Your task to perform on an android device: search for starred emails in the gmail app Image 0: 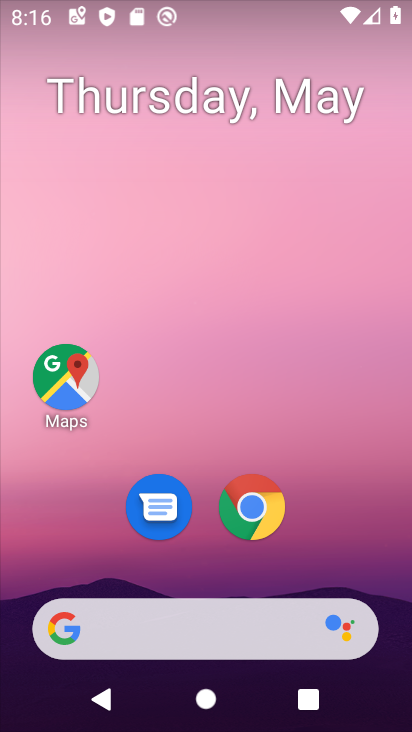
Step 0: press home button
Your task to perform on an android device: search for starred emails in the gmail app Image 1: 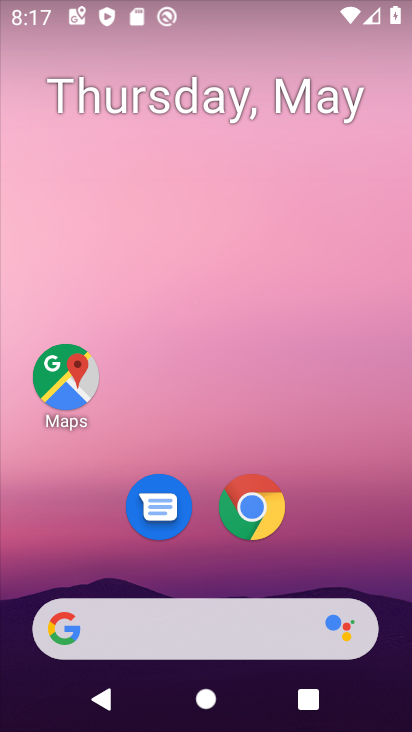
Step 1: drag from (267, 676) to (119, 174)
Your task to perform on an android device: search for starred emails in the gmail app Image 2: 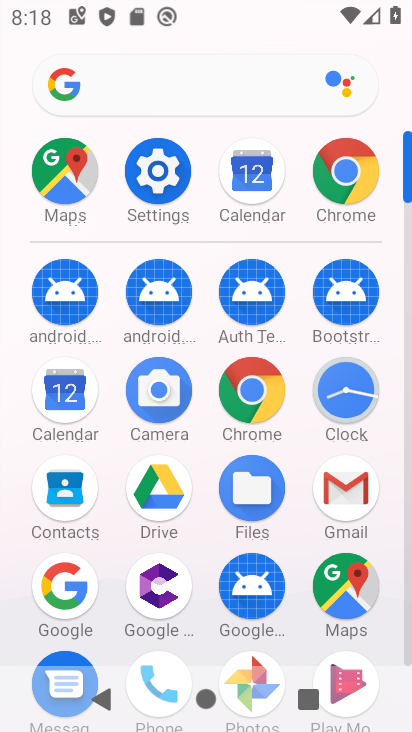
Step 2: click (372, 493)
Your task to perform on an android device: search for starred emails in the gmail app Image 3: 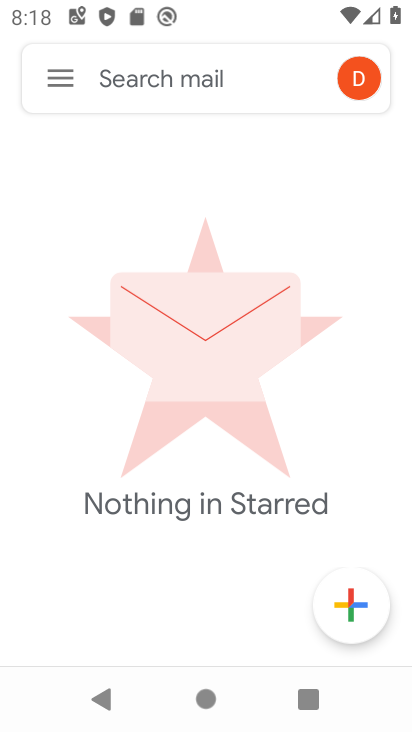
Step 3: click (41, 83)
Your task to perform on an android device: search for starred emails in the gmail app Image 4: 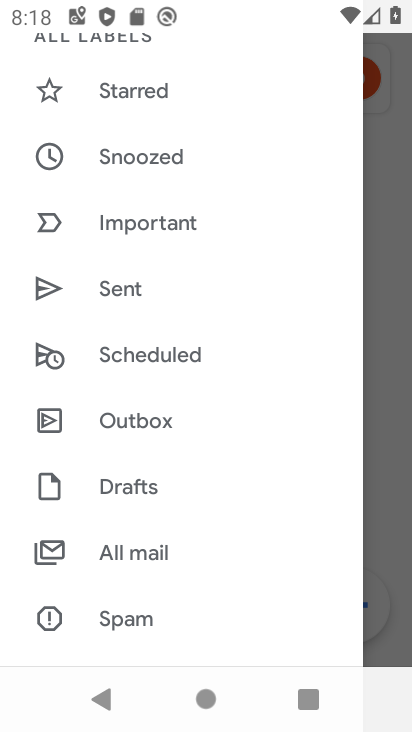
Step 4: click (119, 104)
Your task to perform on an android device: search for starred emails in the gmail app Image 5: 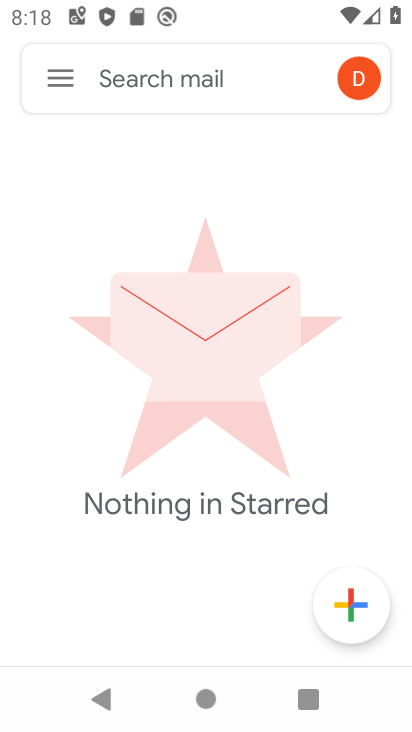
Step 5: task complete